Your task to perform on an android device: Search for sushi restaurants on Maps Image 0: 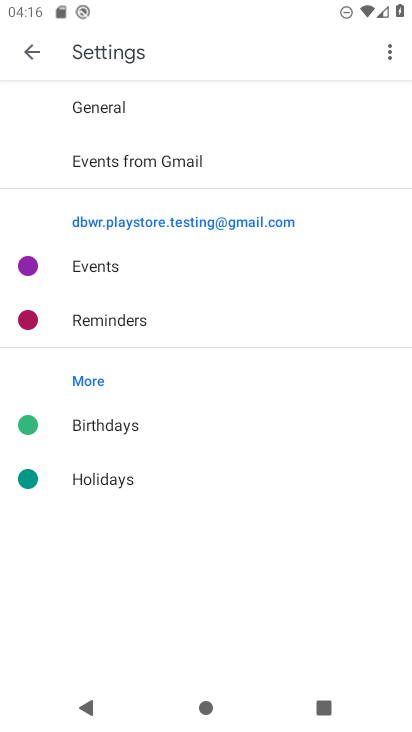
Step 0: press home button
Your task to perform on an android device: Search for sushi restaurants on Maps Image 1: 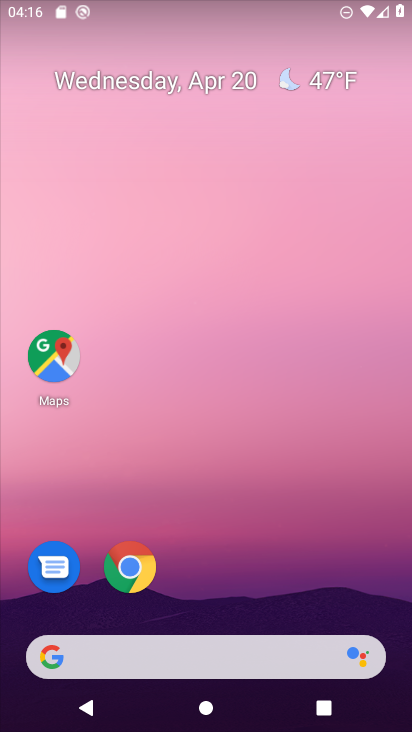
Step 1: click (56, 355)
Your task to perform on an android device: Search for sushi restaurants on Maps Image 2: 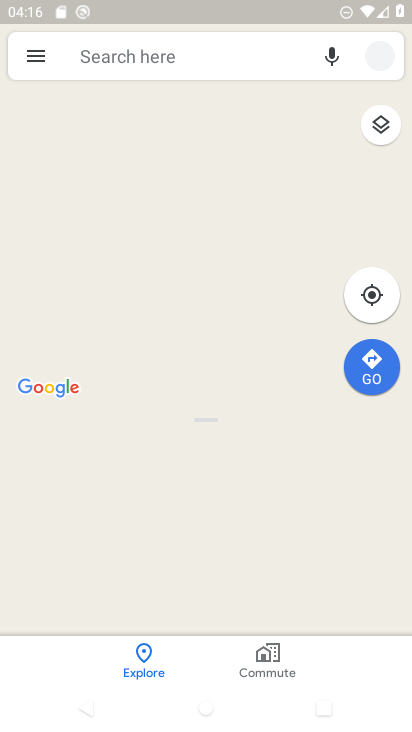
Step 2: click (150, 38)
Your task to perform on an android device: Search for sushi restaurants on Maps Image 3: 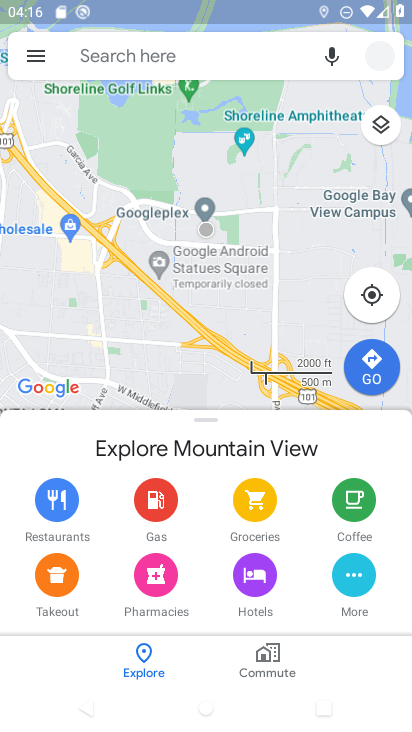
Step 3: click (153, 42)
Your task to perform on an android device: Search for sushi restaurants on Maps Image 4: 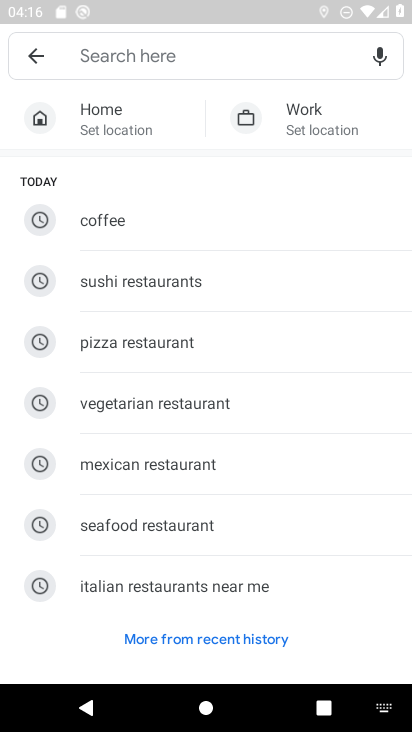
Step 4: click (227, 296)
Your task to perform on an android device: Search for sushi restaurants on Maps Image 5: 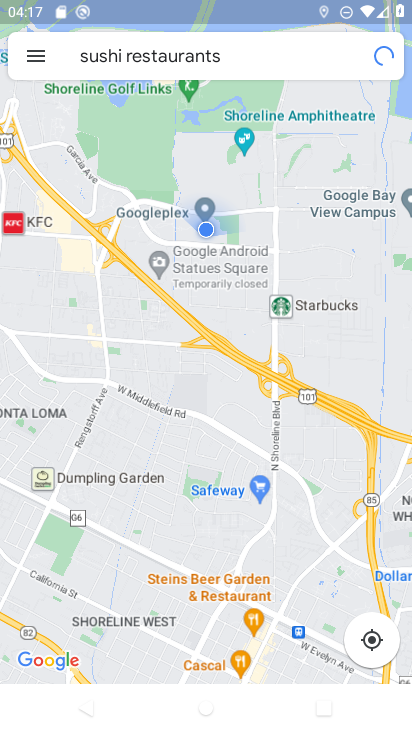
Step 5: task complete